Your task to perform on an android device: Add acer nitro to the cart on ebay.com Image 0: 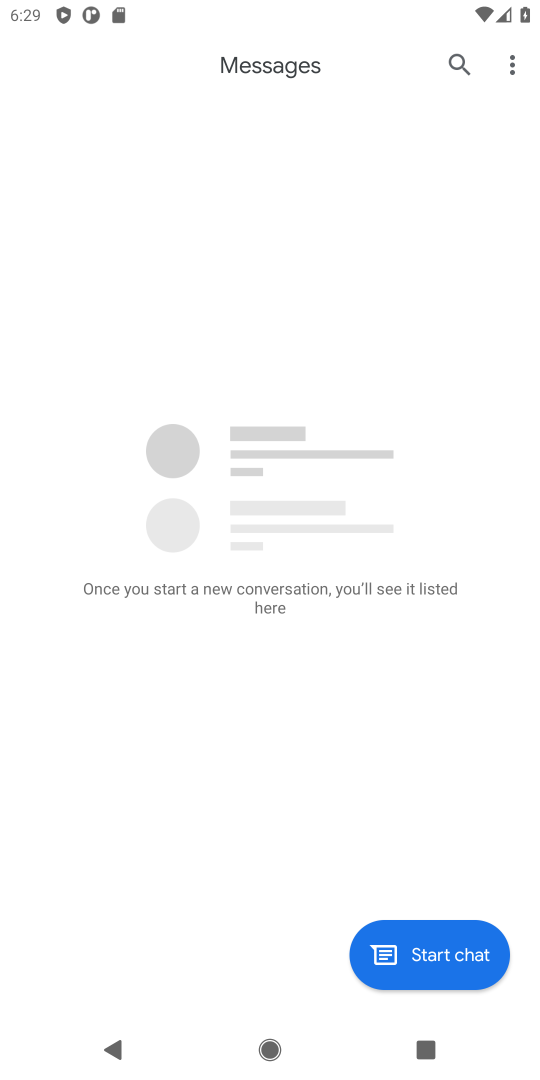
Step 0: press home button
Your task to perform on an android device: Add acer nitro to the cart on ebay.com Image 1: 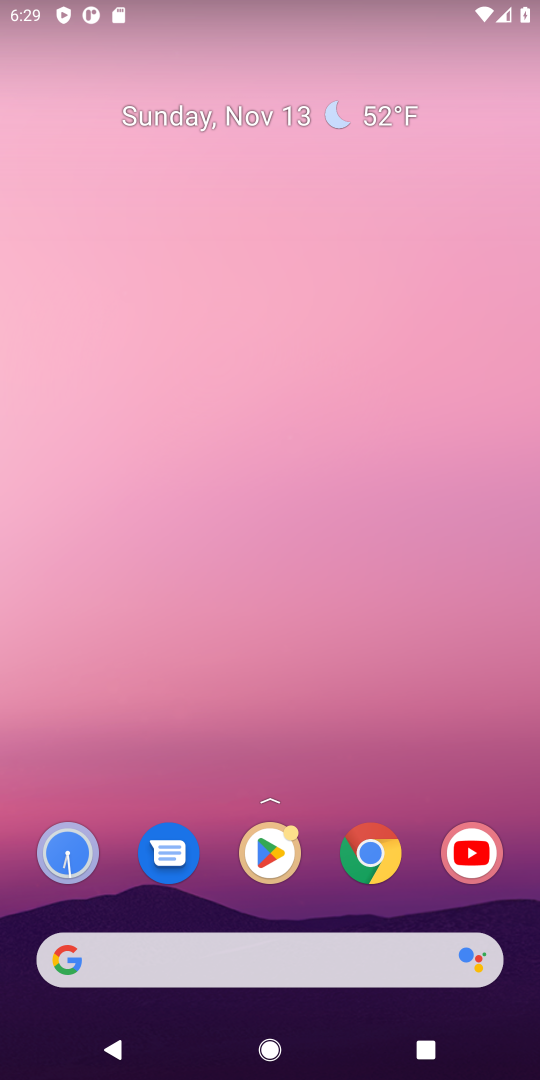
Step 1: click (108, 953)
Your task to perform on an android device: Add acer nitro to the cart on ebay.com Image 2: 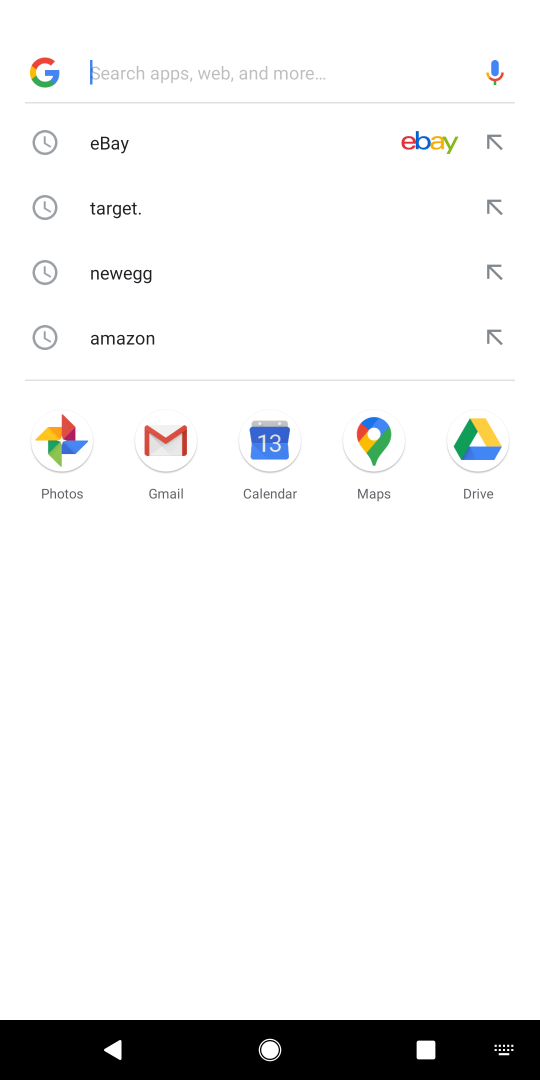
Step 2: type "ebay.com"
Your task to perform on an android device: Add acer nitro to the cart on ebay.com Image 3: 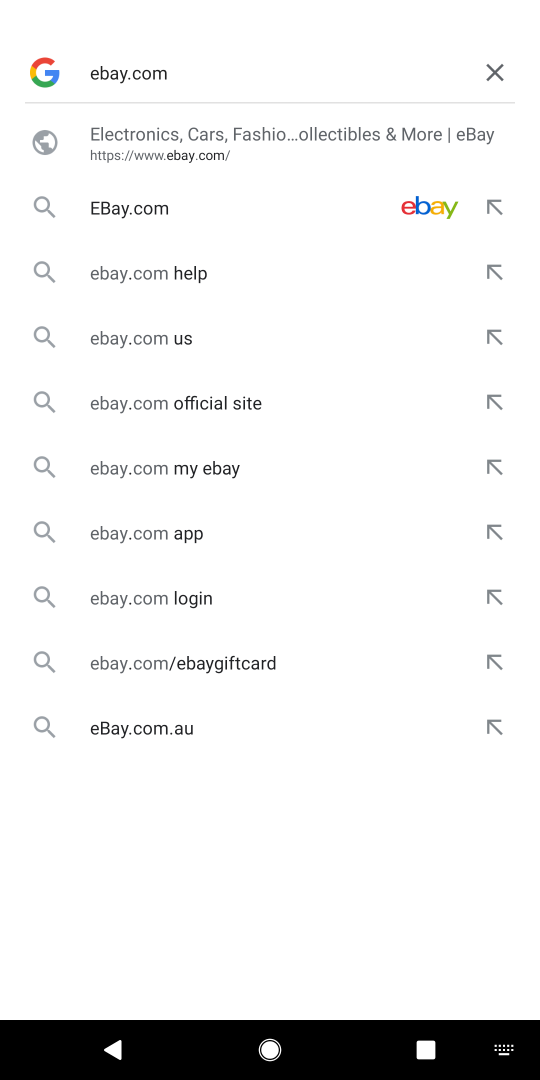
Step 3: press enter
Your task to perform on an android device: Add acer nitro to the cart on ebay.com Image 4: 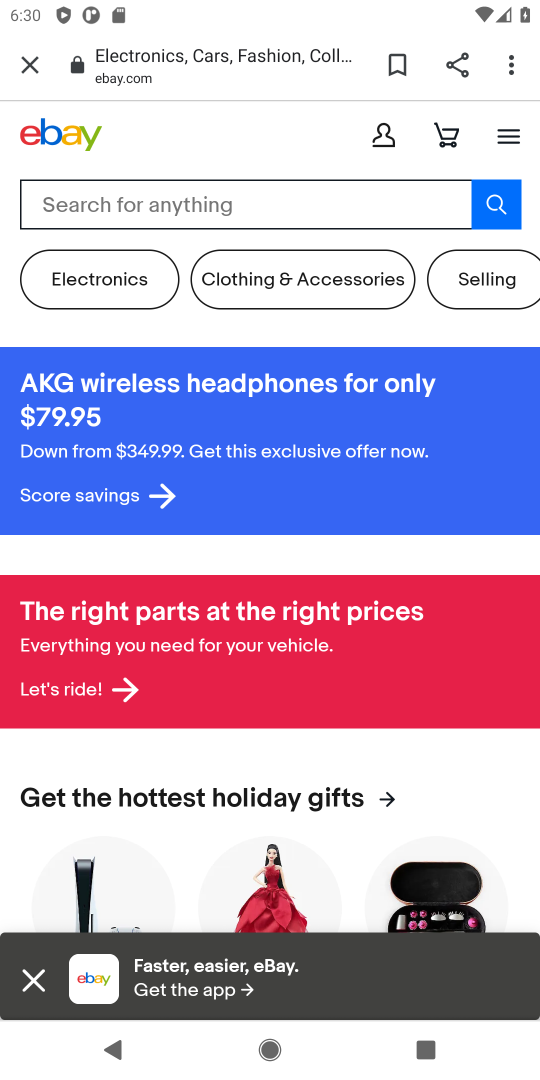
Step 4: click (107, 201)
Your task to perform on an android device: Add acer nitro to the cart on ebay.com Image 5: 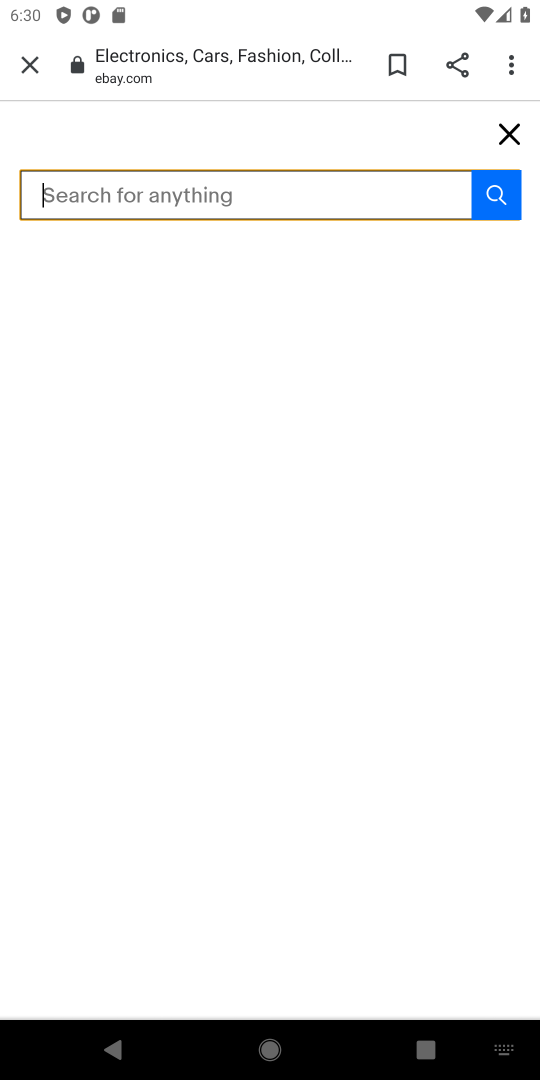
Step 5: type "acer nitro"
Your task to perform on an android device: Add acer nitro to the cart on ebay.com Image 6: 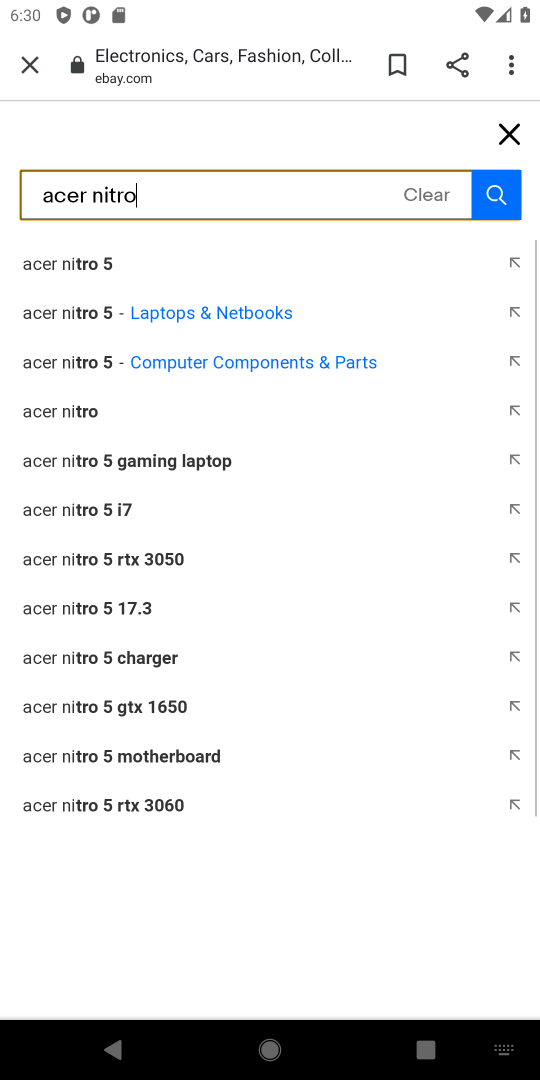
Step 6: press enter
Your task to perform on an android device: Add acer nitro to the cart on ebay.com Image 7: 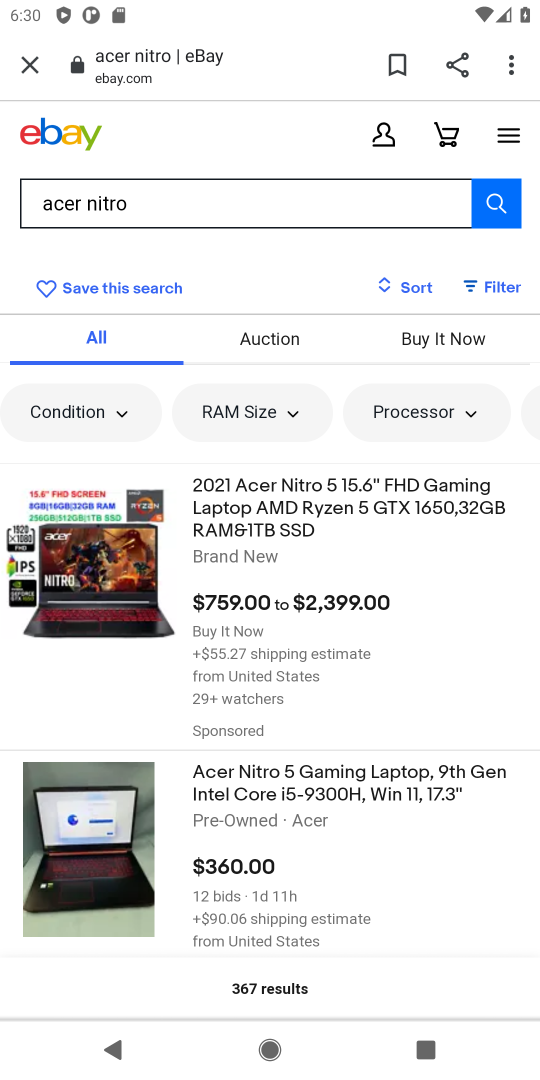
Step 7: drag from (403, 822) to (380, 605)
Your task to perform on an android device: Add acer nitro to the cart on ebay.com Image 8: 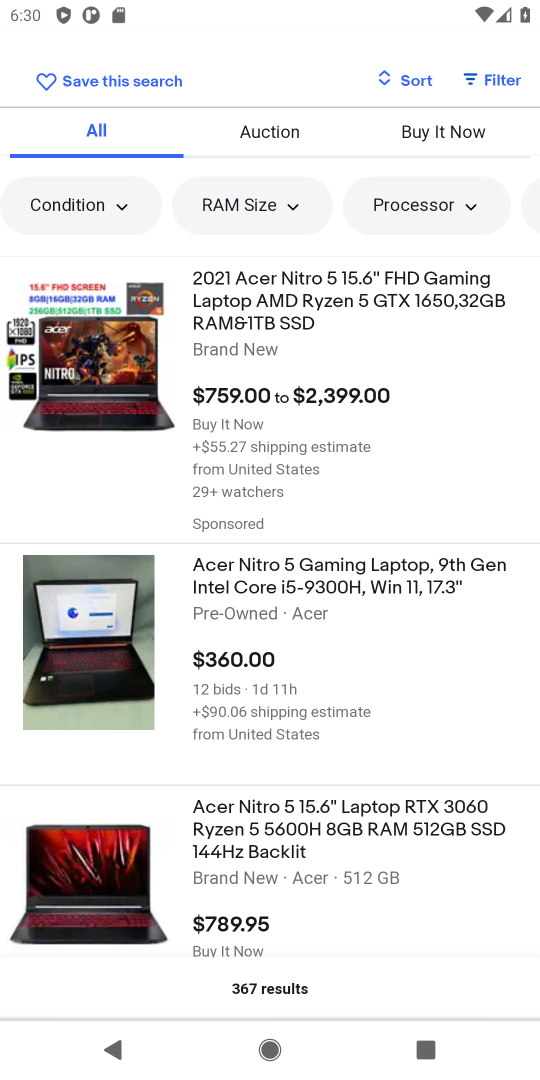
Step 8: click (294, 297)
Your task to perform on an android device: Add acer nitro to the cart on ebay.com Image 9: 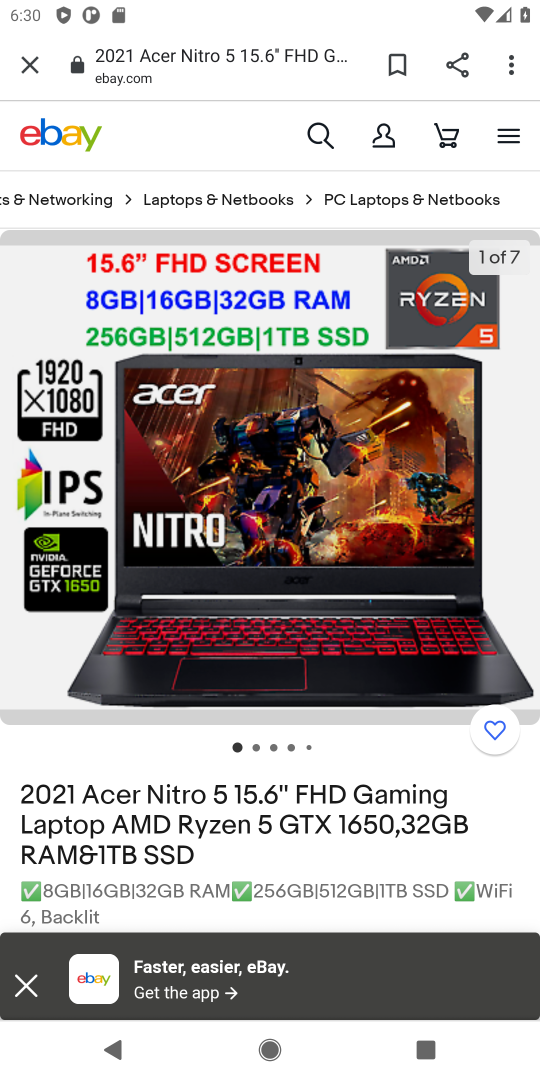
Step 9: drag from (380, 866) to (383, 496)
Your task to perform on an android device: Add acer nitro to the cart on ebay.com Image 10: 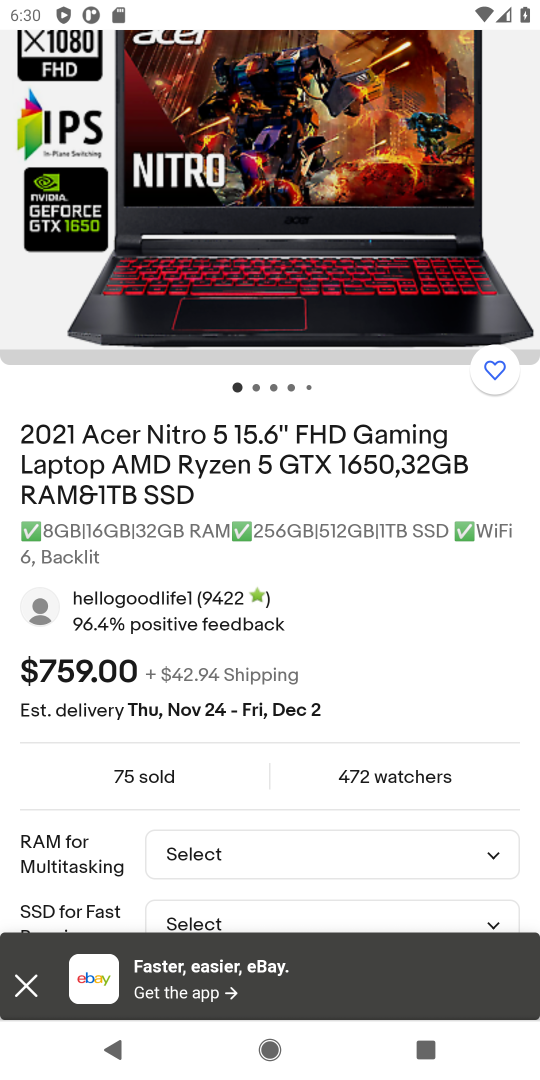
Step 10: drag from (278, 827) to (286, 287)
Your task to perform on an android device: Add acer nitro to the cart on ebay.com Image 11: 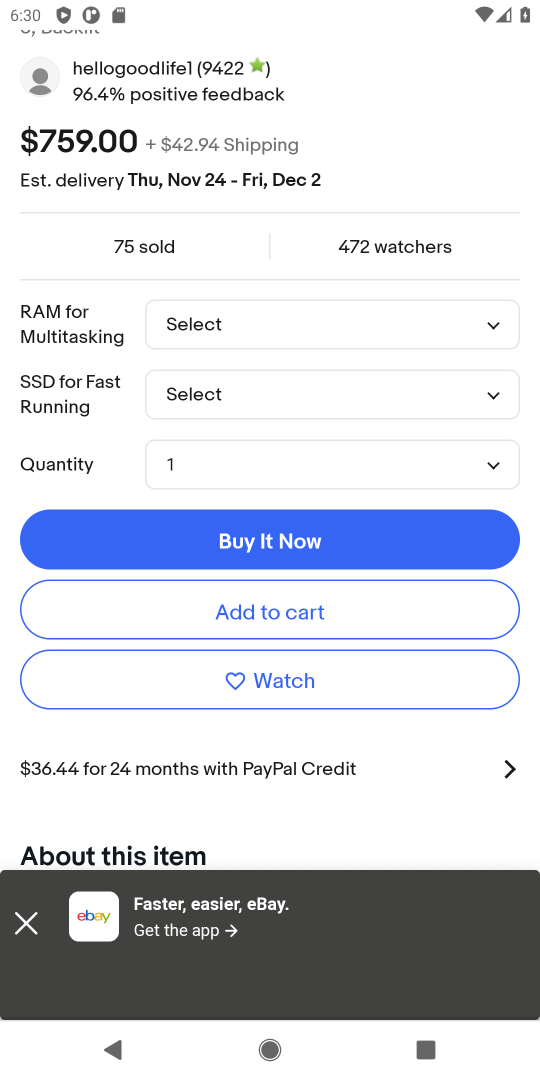
Step 11: click (283, 618)
Your task to perform on an android device: Add acer nitro to the cart on ebay.com Image 12: 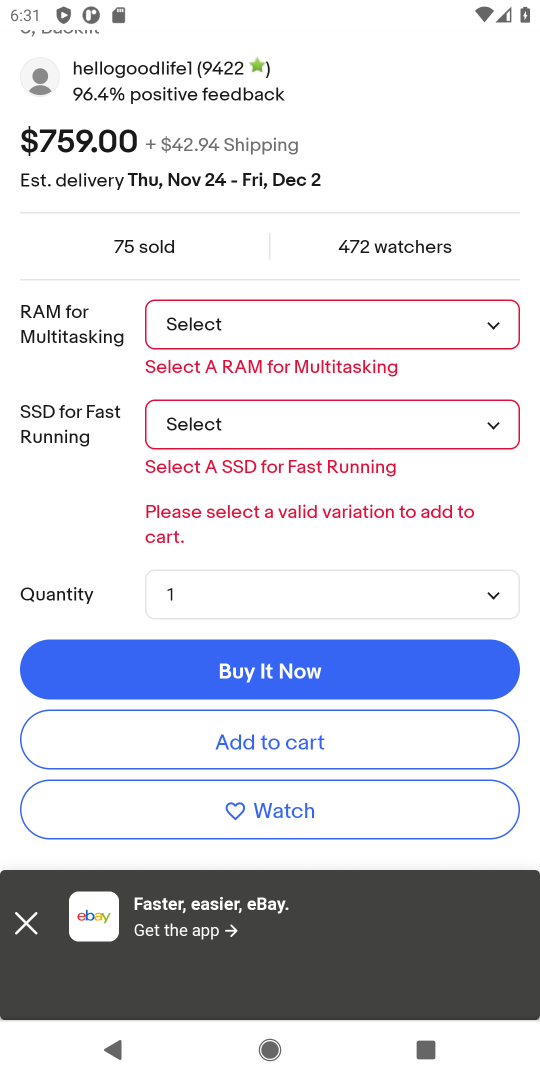
Step 12: click (489, 326)
Your task to perform on an android device: Add acer nitro to the cart on ebay.com Image 13: 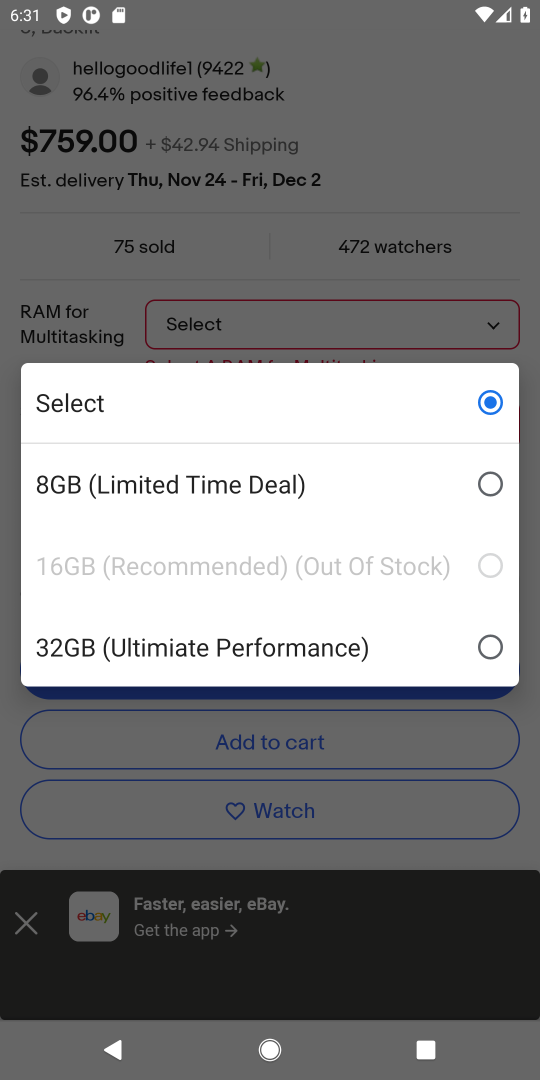
Step 13: click (489, 482)
Your task to perform on an android device: Add acer nitro to the cart on ebay.com Image 14: 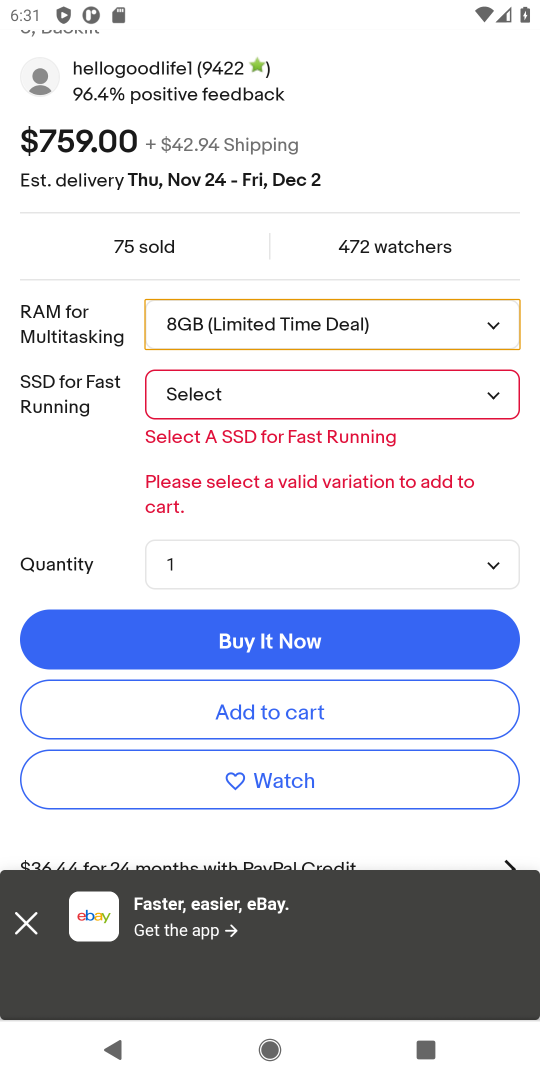
Step 14: click (491, 398)
Your task to perform on an android device: Add acer nitro to the cart on ebay.com Image 15: 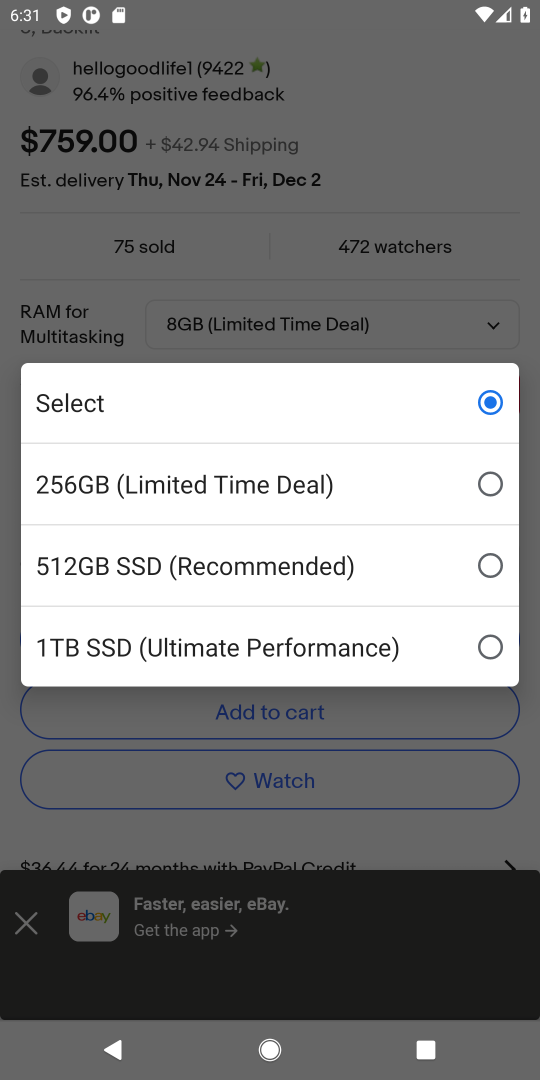
Step 15: click (488, 495)
Your task to perform on an android device: Add acer nitro to the cart on ebay.com Image 16: 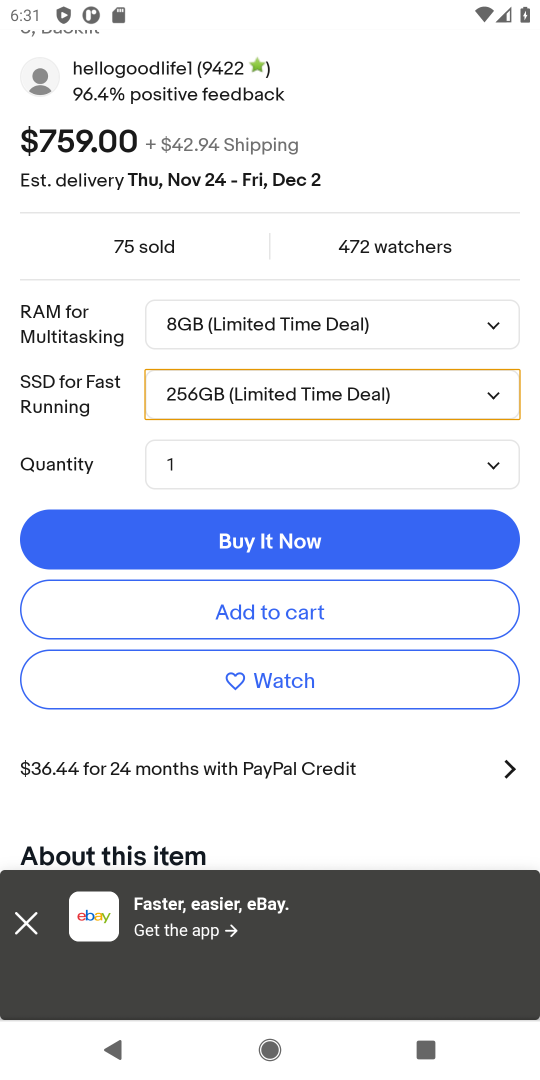
Step 16: click (355, 625)
Your task to perform on an android device: Add acer nitro to the cart on ebay.com Image 17: 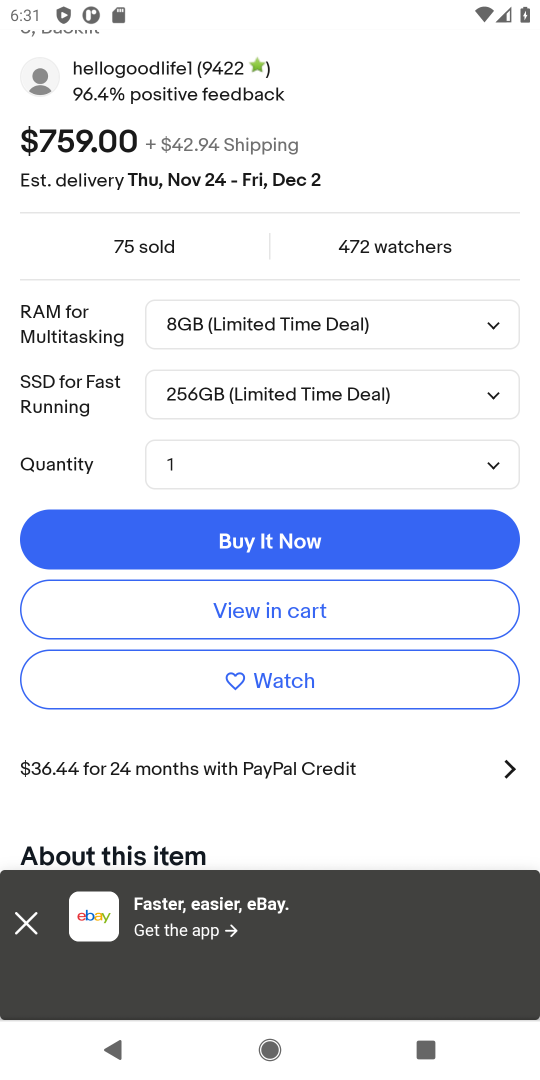
Step 17: click (252, 612)
Your task to perform on an android device: Add acer nitro to the cart on ebay.com Image 18: 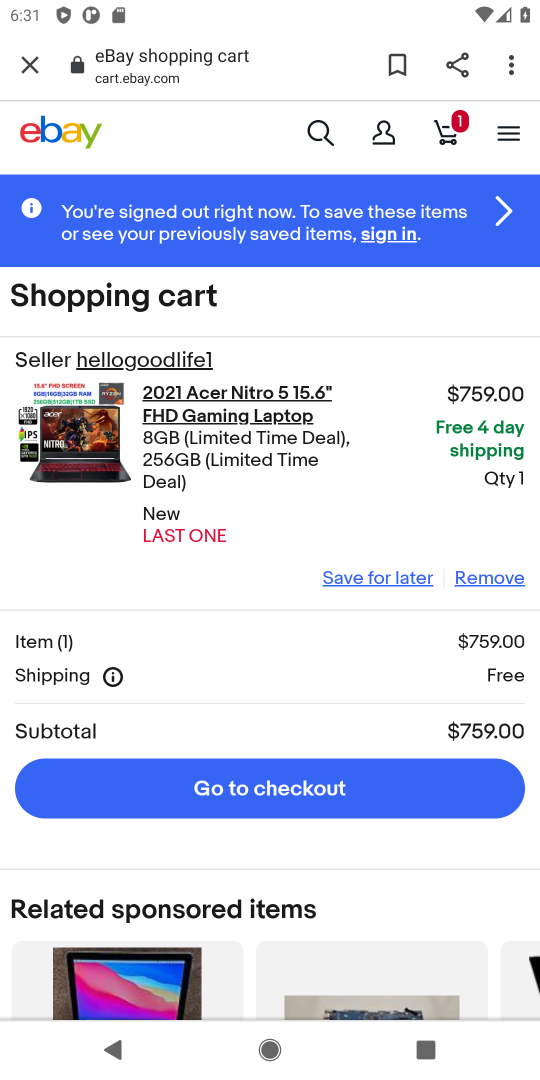
Step 18: task complete